Your task to perform on an android device: Play the last video I watched on Youtube Image 0: 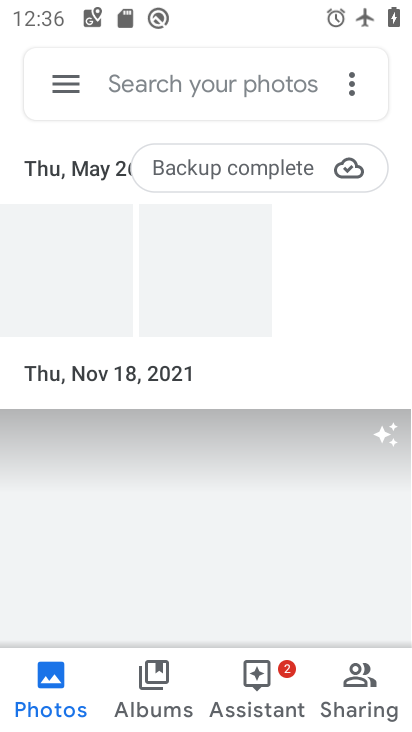
Step 0: press home button
Your task to perform on an android device: Play the last video I watched on Youtube Image 1: 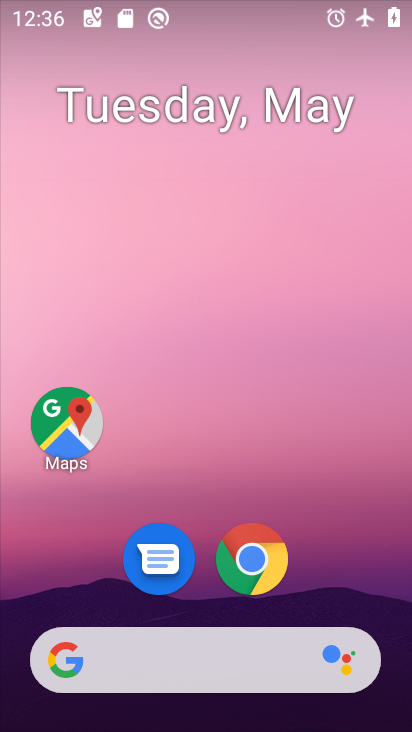
Step 1: drag from (347, 605) to (317, 98)
Your task to perform on an android device: Play the last video I watched on Youtube Image 2: 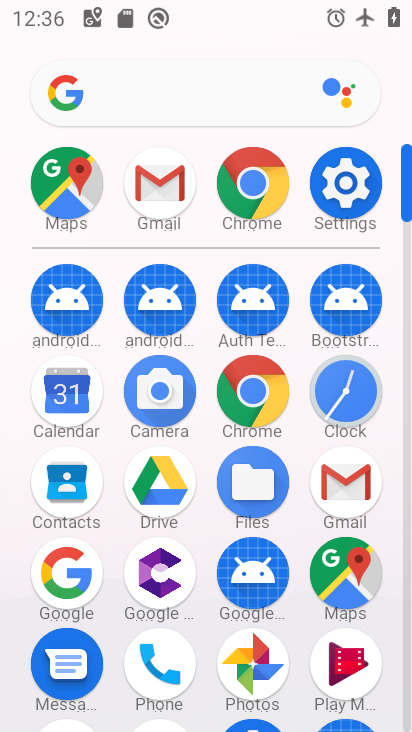
Step 2: click (411, 719)
Your task to perform on an android device: Play the last video I watched on Youtube Image 3: 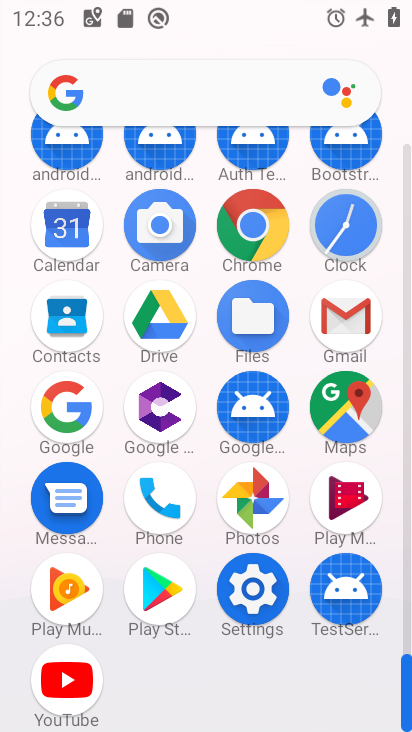
Step 3: click (58, 691)
Your task to perform on an android device: Play the last video I watched on Youtube Image 4: 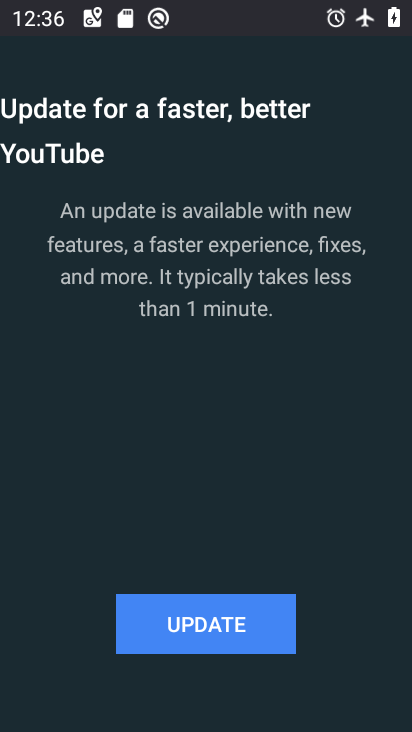
Step 4: click (258, 621)
Your task to perform on an android device: Play the last video I watched on Youtube Image 5: 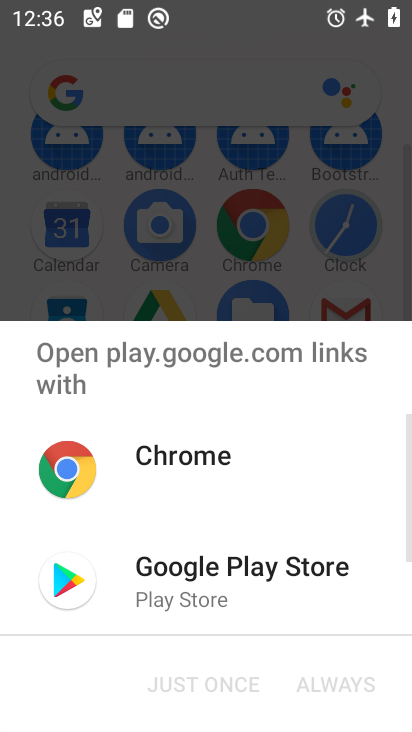
Step 5: click (231, 575)
Your task to perform on an android device: Play the last video I watched on Youtube Image 6: 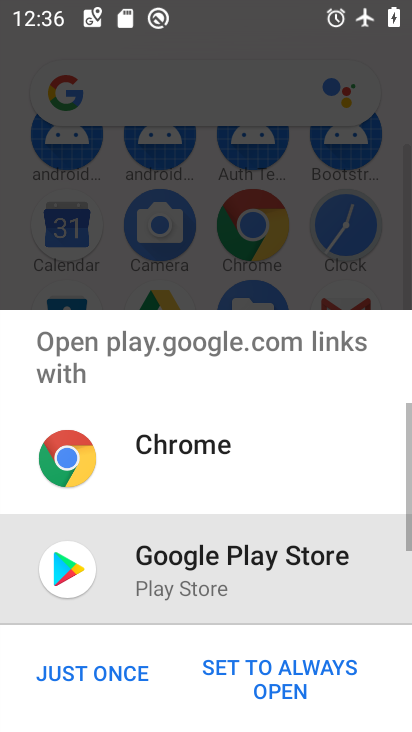
Step 6: click (123, 680)
Your task to perform on an android device: Play the last video I watched on Youtube Image 7: 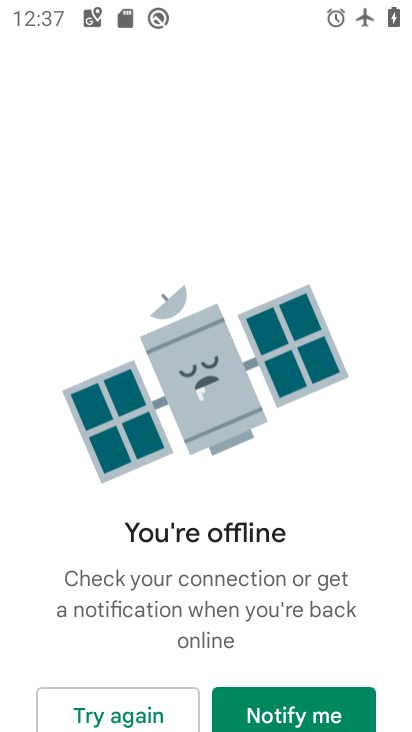
Step 7: task complete